Your task to perform on an android device: turn on priority inbox in the gmail app Image 0: 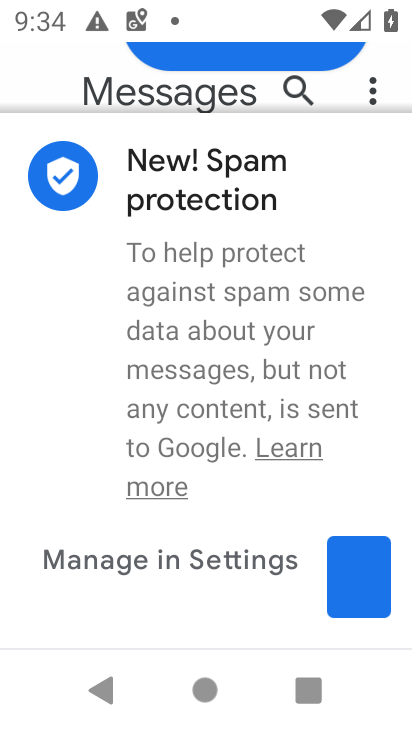
Step 0: press home button
Your task to perform on an android device: turn on priority inbox in the gmail app Image 1: 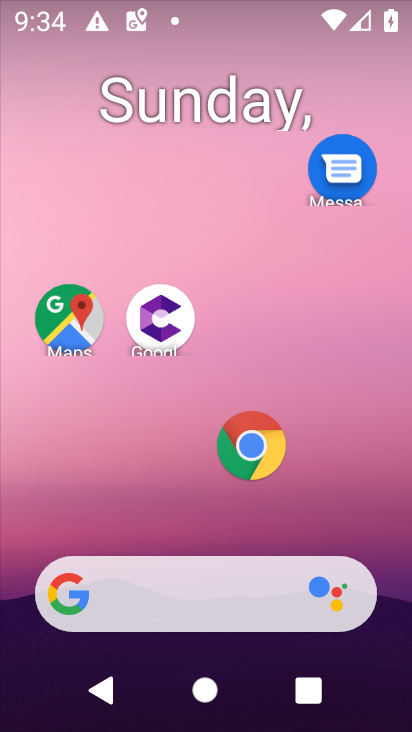
Step 1: drag from (341, 480) to (255, 73)
Your task to perform on an android device: turn on priority inbox in the gmail app Image 2: 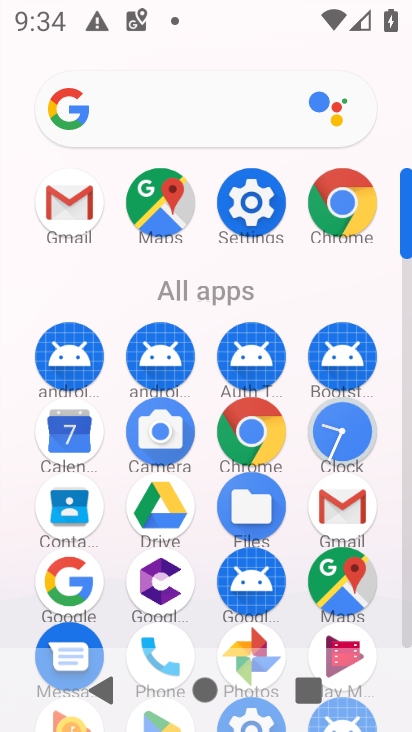
Step 2: click (349, 509)
Your task to perform on an android device: turn on priority inbox in the gmail app Image 3: 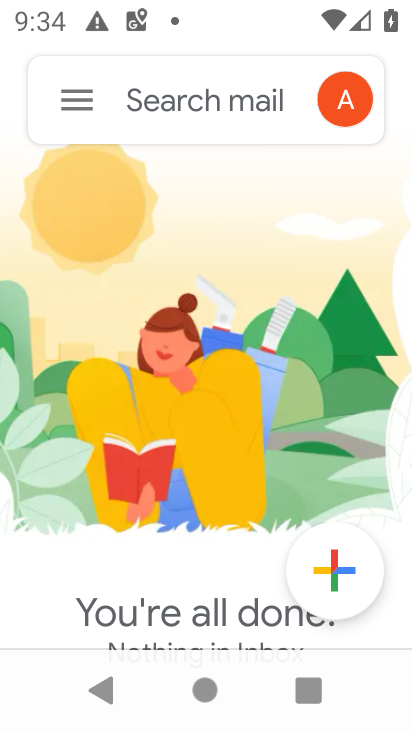
Step 3: task complete